Your task to perform on an android device: Go to battery settings Image 0: 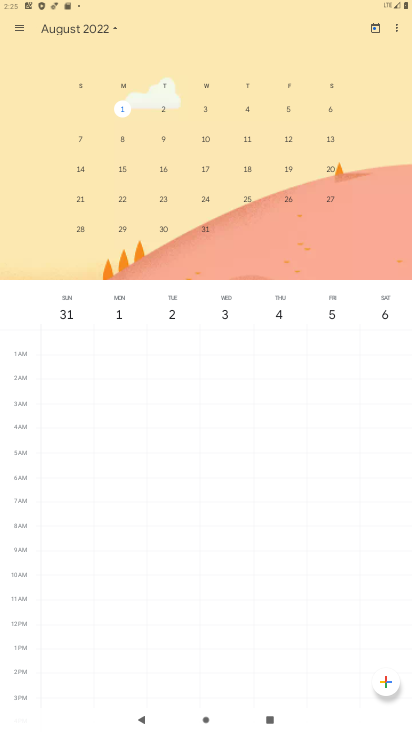
Step 0: press home button
Your task to perform on an android device: Go to battery settings Image 1: 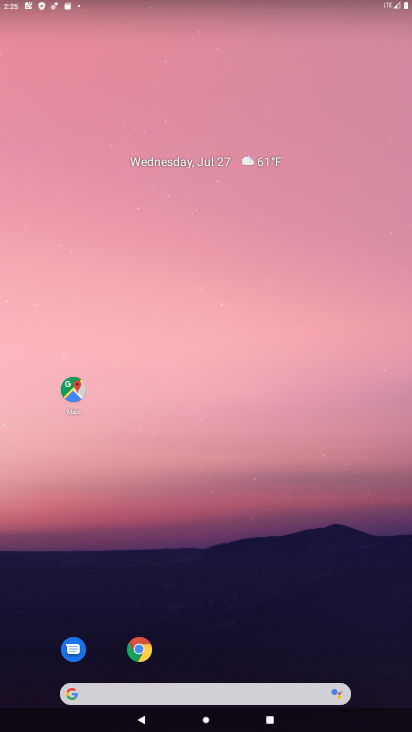
Step 1: drag from (183, 626) to (174, 294)
Your task to perform on an android device: Go to battery settings Image 2: 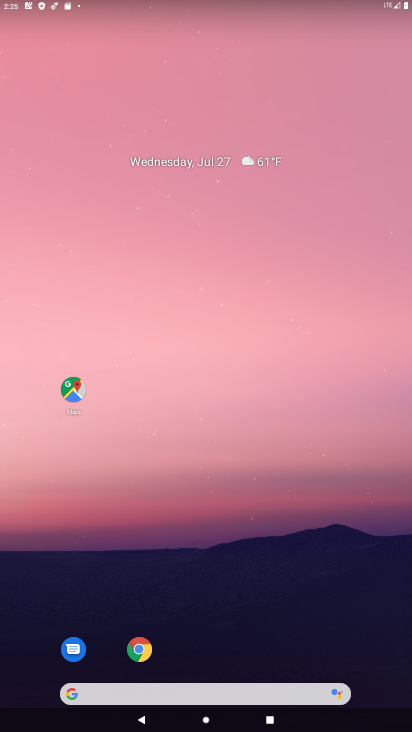
Step 2: drag from (182, 600) to (184, 71)
Your task to perform on an android device: Go to battery settings Image 3: 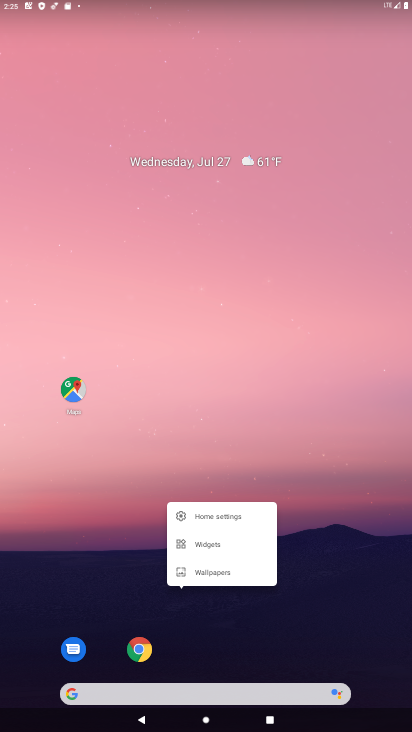
Step 3: click (199, 639)
Your task to perform on an android device: Go to battery settings Image 4: 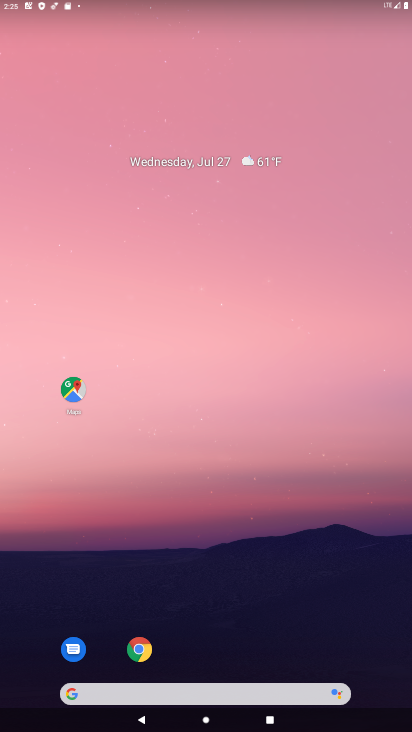
Step 4: drag from (199, 639) to (209, 6)
Your task to perform on an android device: Go to battery settings Image 5: 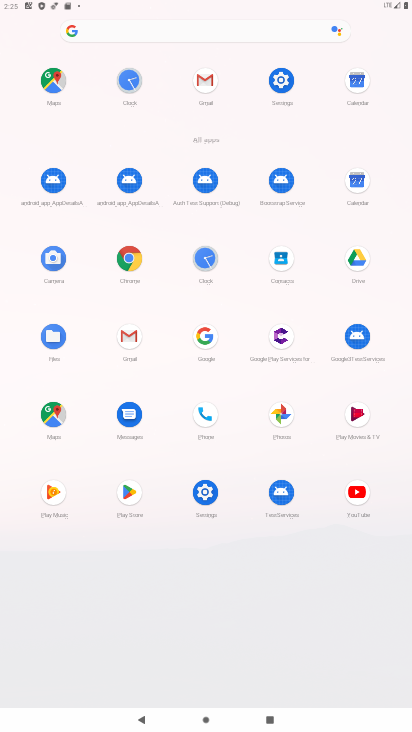
Step 5: click (282, 93)
Your task to perform on an android device: Go to battery settings Image 6: 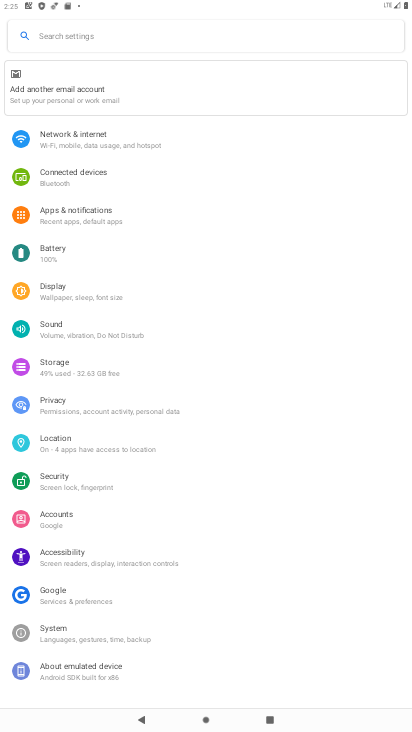
Step 6: click (31, 253)
Your task to perform on an android device: Go to battery settings Image 7: 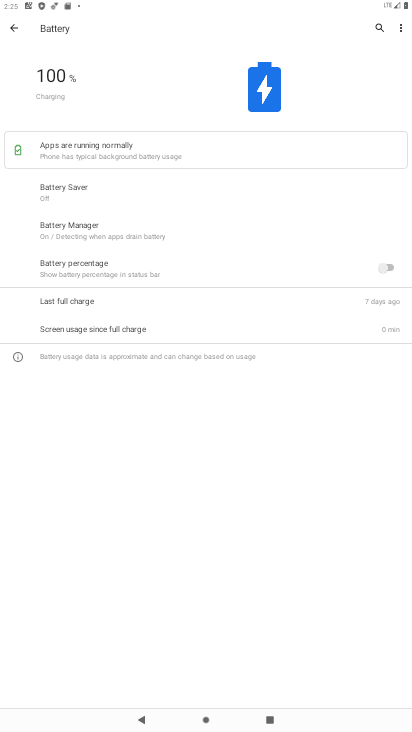
Step 7: task complete